Your task to perform on an android device: Search for alienware aurora on bestbuy.com, select the first entry, add it to the cart, then select checkout. Image 0: 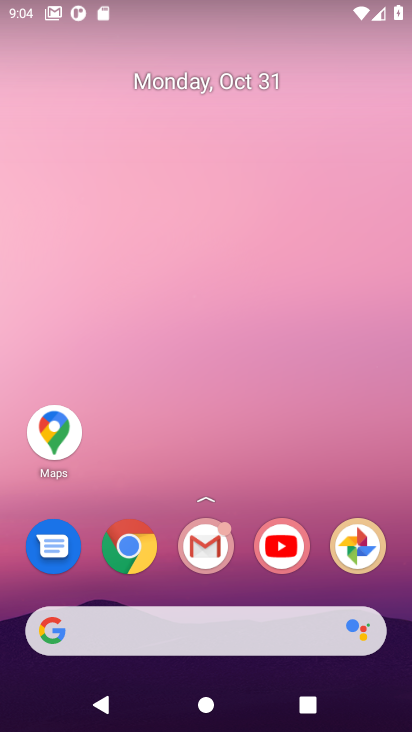
Step 0: drag from (125, 610) to (155, 114)
Your task to perform on an android device: Search for alienware aurora on bestbuy.com, select the first entry, add it to the cart, then select checkout. Image 1: 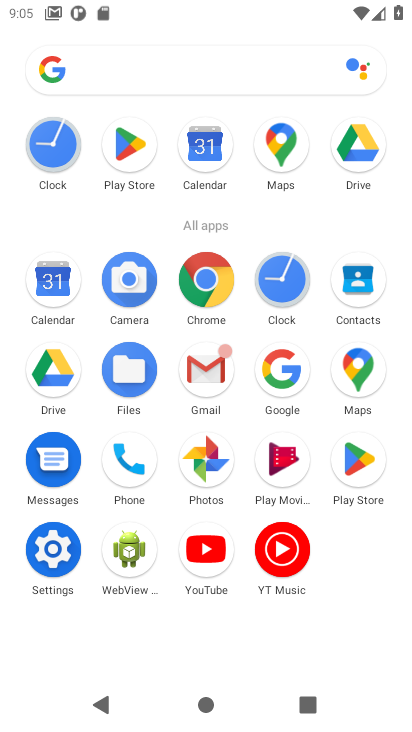
Step 1: click (203, 286)
Your task to perform on an android device: Search for alienware aurora on bestbuy.com, select the first entry, add it to the cart, then select checkout. Image 2: 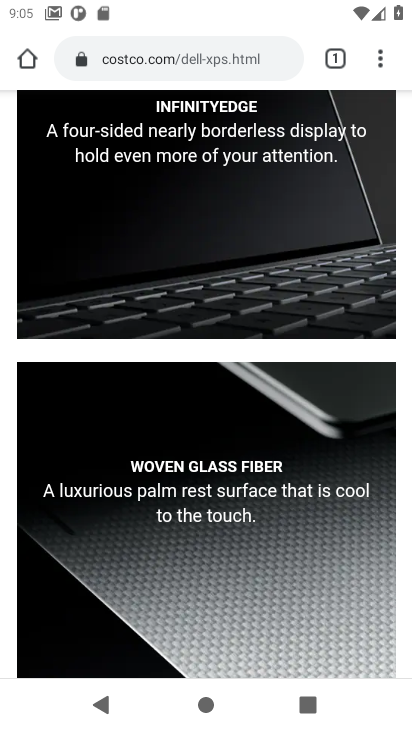
Step 2: drag from (149, 78) to (185, 369)
Your task to perform on an android device: Search for alienware aurora on bestbuy.com, select the first entry, add it to the cart, then select checkout. Image 3: 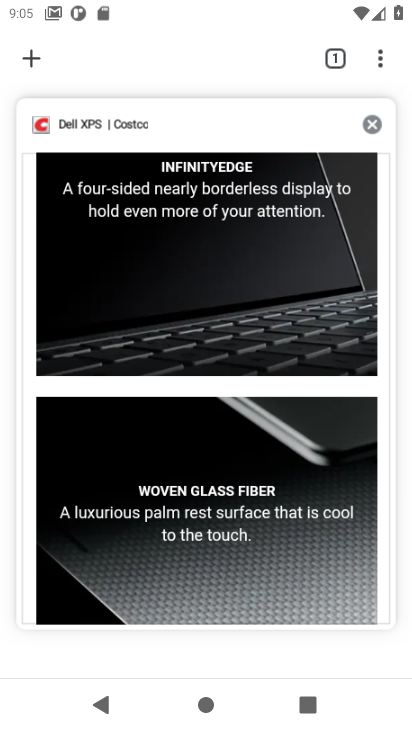
Step 3: click (138, 58)
Your task to perform on an android device: Search for alienware aurora on bestbuy.com, select the first entry, add it to the cart, then select checkout. Image 4: 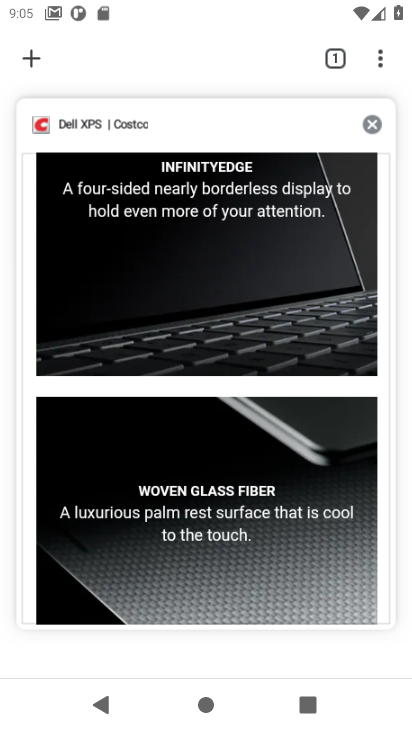
Step 4: click (137, 119)
Your task to perform on an android device: Search for alienware aurora on bestbuy.com, select the first entry, add it to the cart, then select checkout. Image 5: 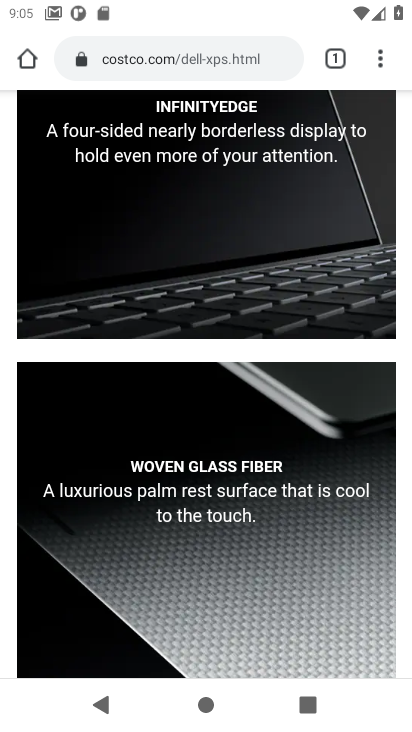
Step 5: click (121, 60)
Your task to perform on an android device: Search for alienware aurora on bestbuy.com, select the first entry, add it to the cart, then select checkout. Image 6: 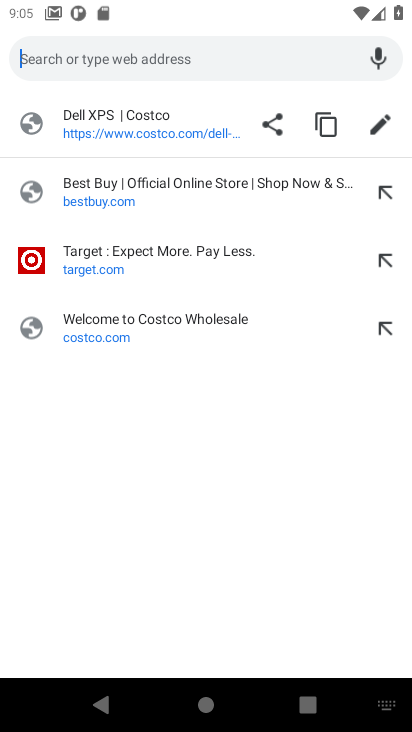
Step 6: type "bestbuy.com"
Your task to perform on an android device: Search for alienware aurora on bestbuy.com, select the first entry, add it to the cart, then select checkout. Image 7: 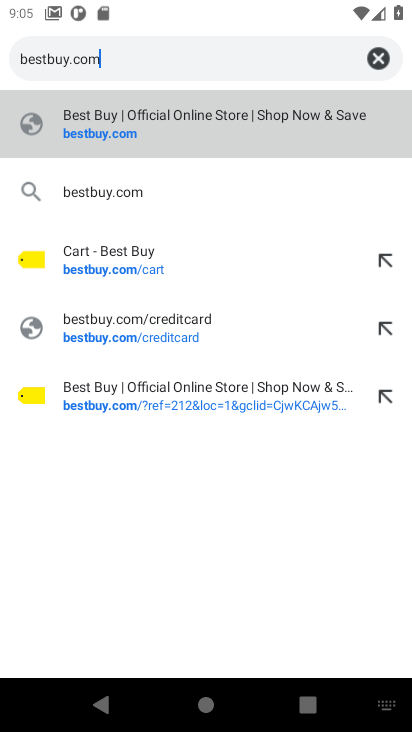
Step 7: press enter
Your task to perform on an android device: Search for alienware aurora on bestbuy.com, select the first entry, add it to the cart, then select checkout. Image 8: 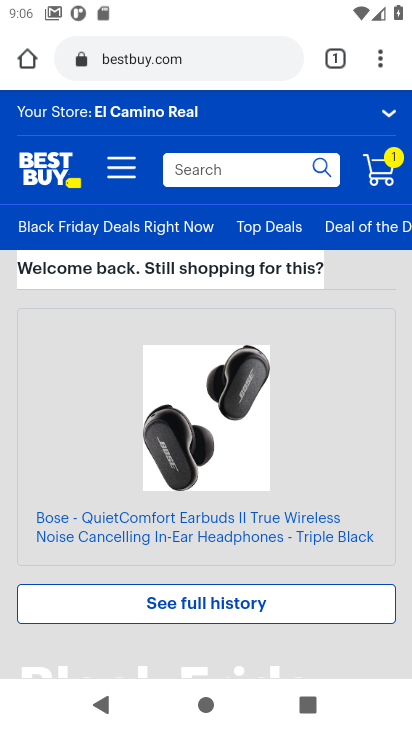
Step 8: click (186, 162)
Your task to perform on an android device: Search for alienware aurora on bestbuy.com, select the first entry, add it to the cart, then select checkout. Image 9: 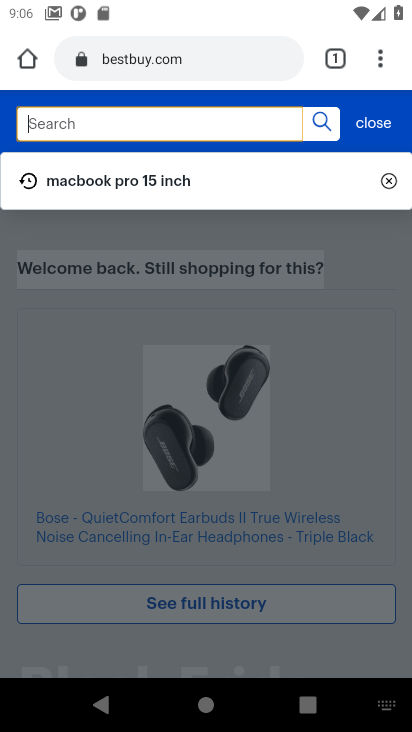
Step 9: type "alienware aurora "
Your task to perform on an android device: Search for alienware aurora on bestbuy.com, select the first entry, add it to the cart, then select checkout. Image 10: 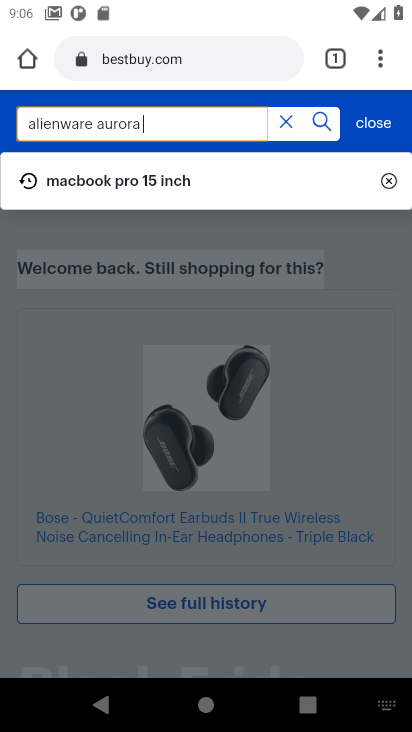
Step 10: press enter
Your task to perform on an android device: Search for alienware aurora on bestbuy.com, select the first entry, add it to the cart, then select checkout. Image 11: 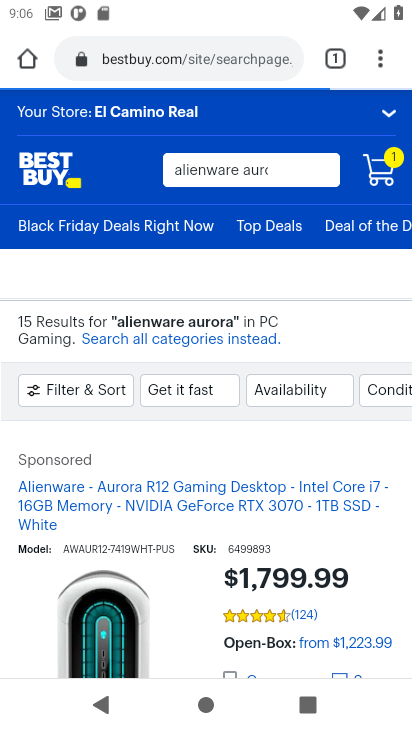
Step 11: drag from (267, 593) to (198, 291)
Your task to perform on an android device: Search for alienware aurora on bestbuy.com, select the first entry, add it to the cart, then select checkout. Image 12: 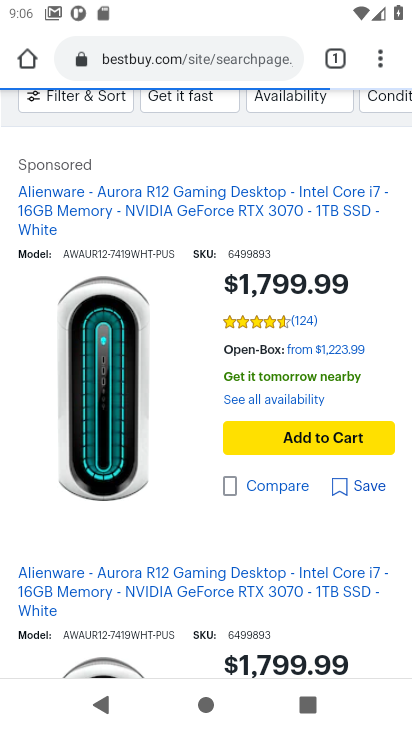
Step 12: click (297, 437)
Your task to perform on an android device: Search for alienware aurora on bestbuy.com, select the first entry, add it to the cart, then select checkout. Image 13: 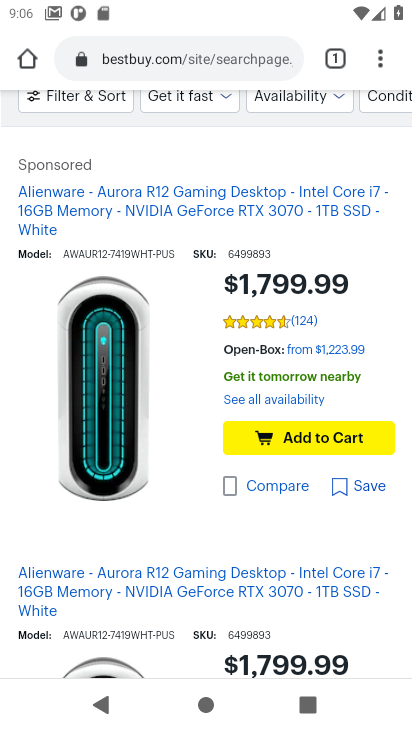
Step 13: drag from (133, 223) to (170, 556)
Your task to perform on an android device: Search for alienware aurora on bestbuy.com, select the first entry, add it to the cart, then select checkout. Image 14: 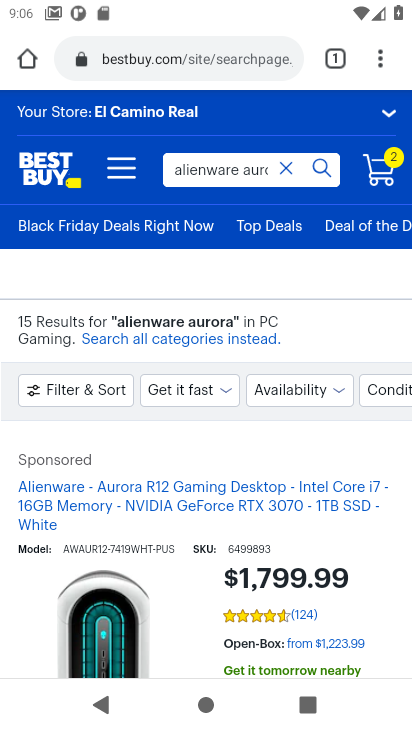
Step 14: click (377, 165)
Your task to perform on an android device: Search for alienware aurora on bestbuy.com, select the first entry, add it to the cart, then select checkout. Image 15: 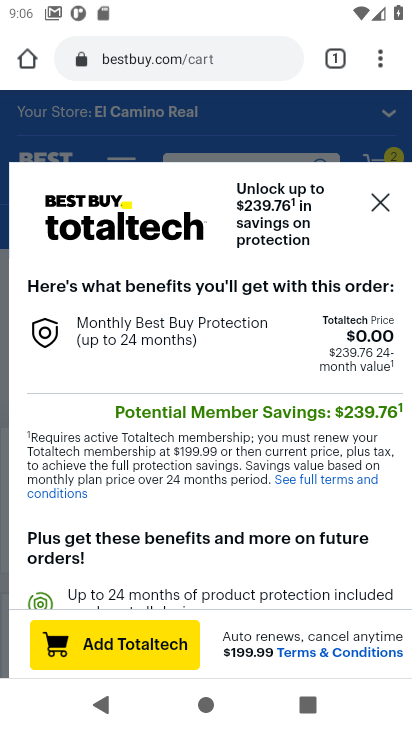
Step 15: drag from (193, 515) to (166, 218)
Your task to perform on an android device: Search for alienware aurora on bestbuy.com, select the first entry, add it to the cart, then select checkout. Image 16: 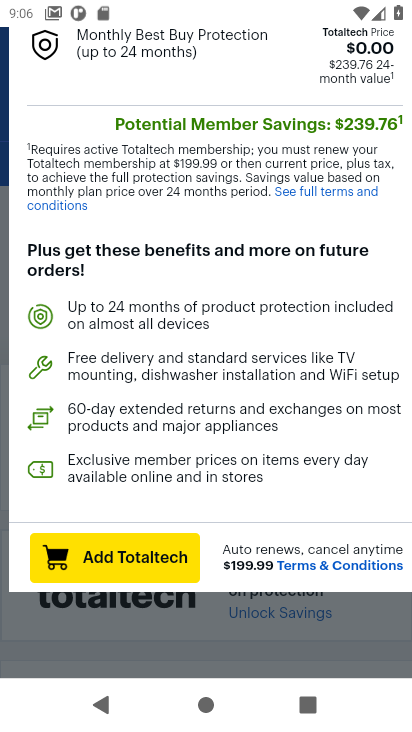
Step 16: drag from (162, 387) to (134, 253)
Your task to perform on an android device: Search for alienware aurora on bestbuy.com, select the first entry, add it to the cart, then select checkout. Image 17: 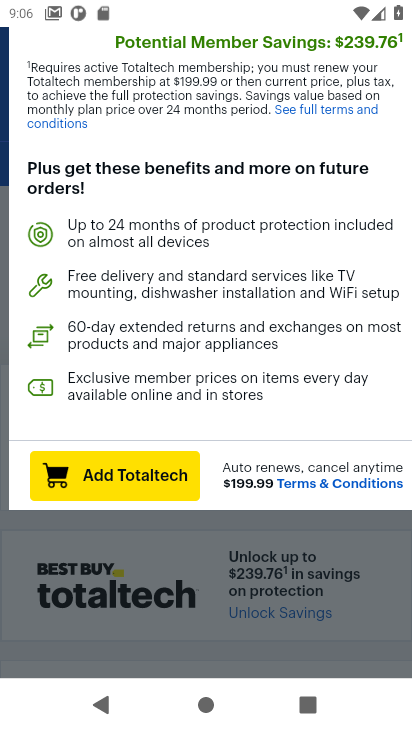
Step 17: drag from (238, 288) to (260, 598)
Your task to perform on an android device: Search for alienware aurora on bestbuy.com, select the first entry, add it to the cart, then select checkout. Image 18: 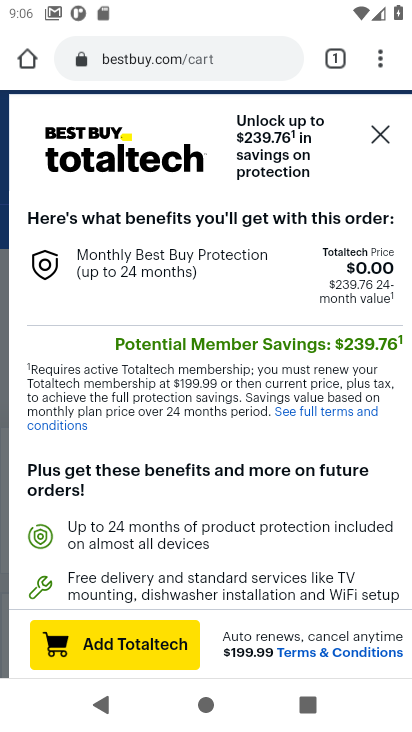
Step 18: click (379, 137)
Your task to perform on an android device: Search for alienware aurora on bestbuy.com, select the first entry, add it to the cart, then select checkout. Image 19: 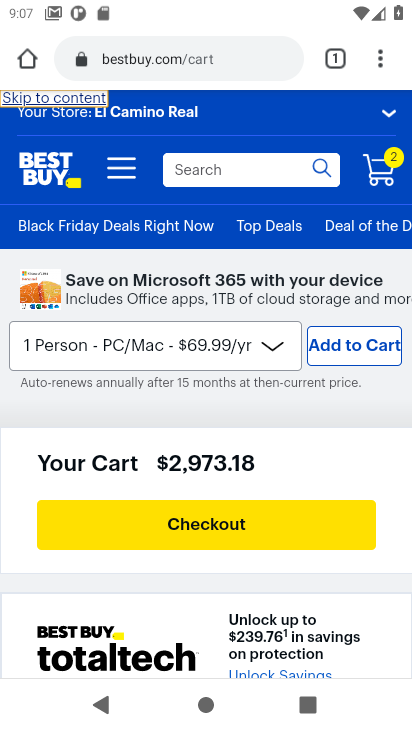
Step 19: click (255, 522)
Your task to perform on an android device: Search for alienware aurora on bestbuy.com, select the first entry, add it to the cart, then select checkout. Image 20: 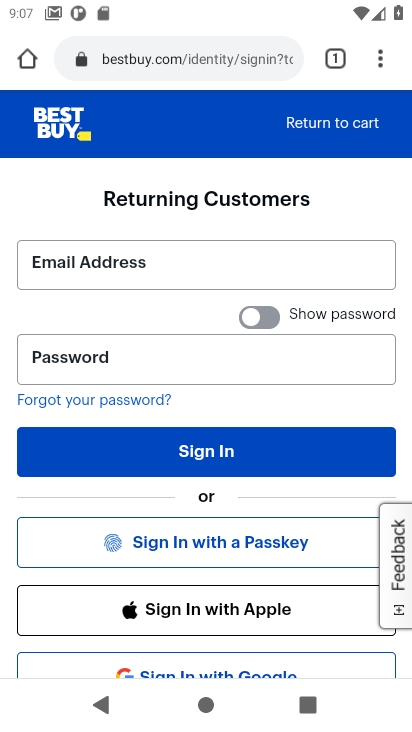
Step 20: task complete